Your task to perform on an android device: star an email in the gmail app Image 0: 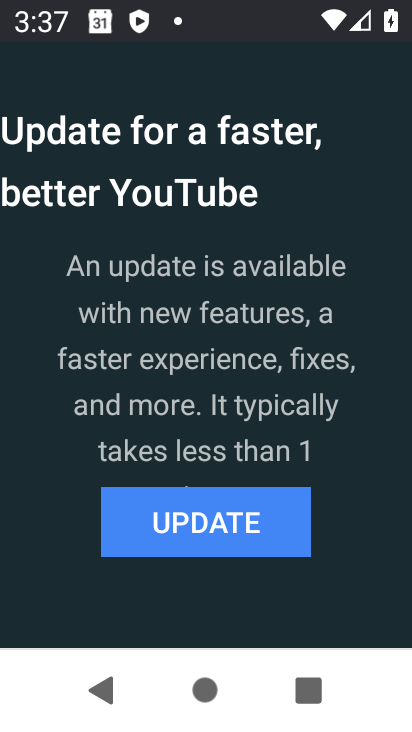
Step 0: press home button
Your task to perform on an android device: star an email in the gmail app Image 1: 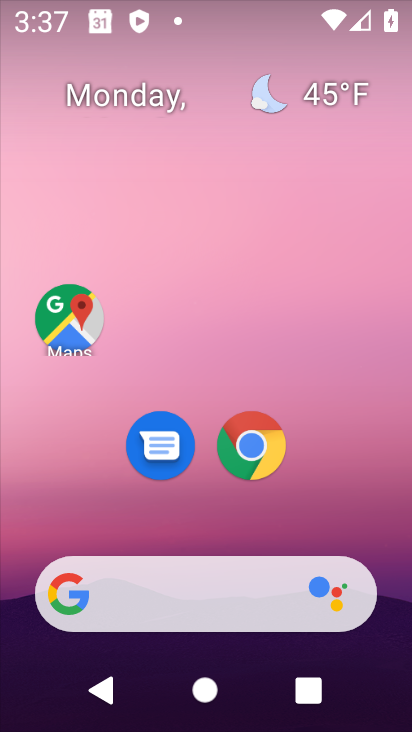
Step 1: drag from (290, 540) to (253, 52)
Your task to perform on an android device: star an email in the gmail app Image 2: 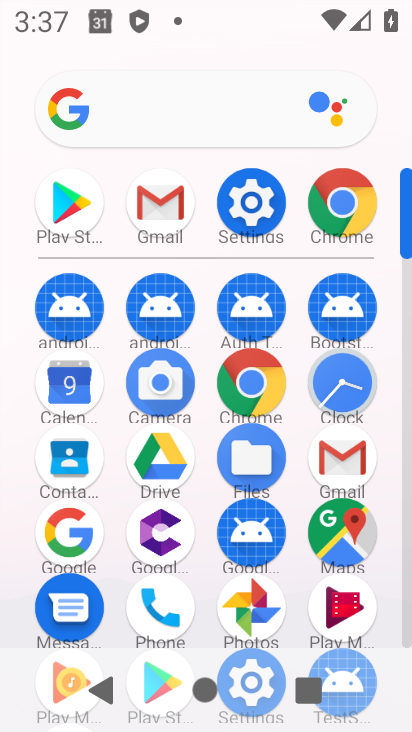
Step 2: click (145, 209)
Your task to perform on an android device: star an email in the gmail app Image 3: 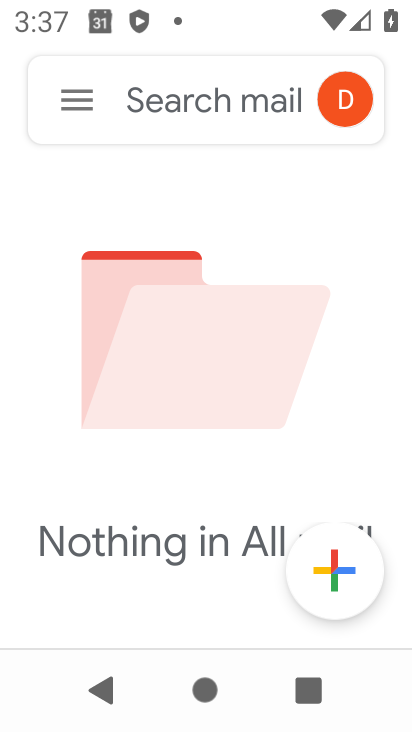
Step 3: click (78, 107)
Your task to perform on an android device: star an email in the gmail app Image 4: 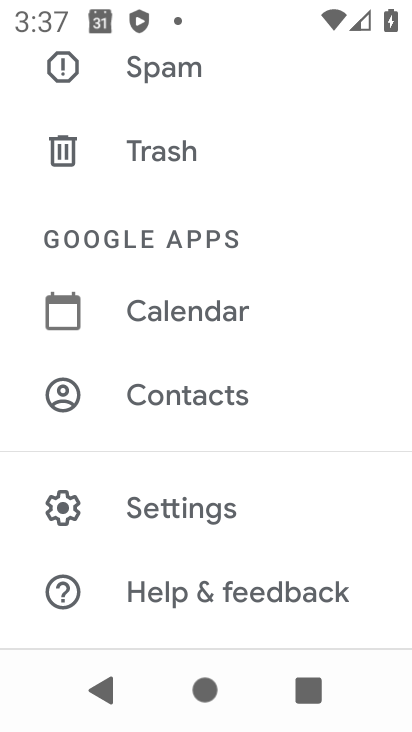
Step 4: drag from (179, 118) to (257, 386)
Your task to perform on an android device: star an email in the gmail app Image 5: 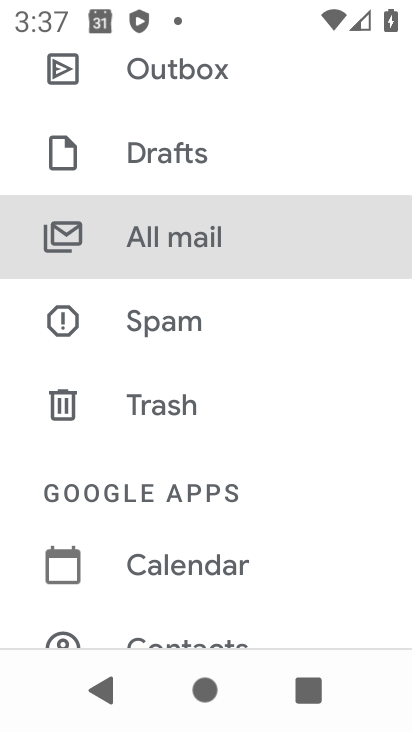
Step 5: click (202, 223)
Your task to perform on an android device: star an email in the gmail app Image 6: 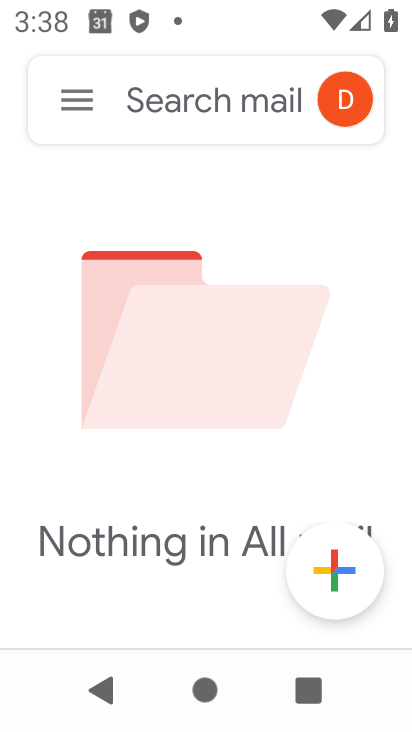
Step 6: task complete